Your task to perform on an android device: toggle data saver in the chrome app Image 0: 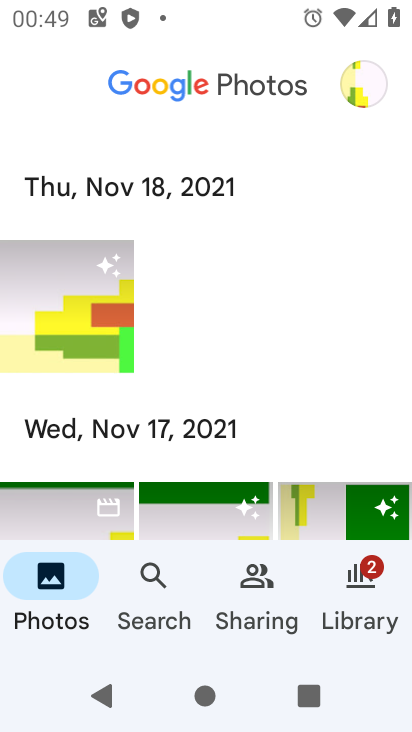
Step 0: press home button
Your task to perform on an android device: toggle data saver in the chrome app Image 1: 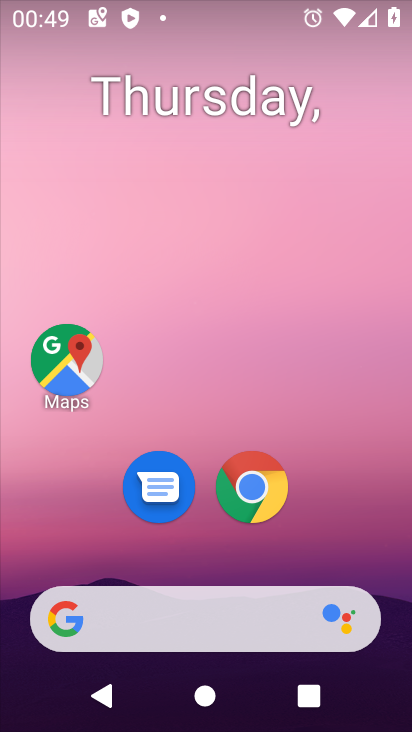
Step 1: click (254, 488)
Your task to perform on an android device: toggle data saver in the chrome app Image 2: 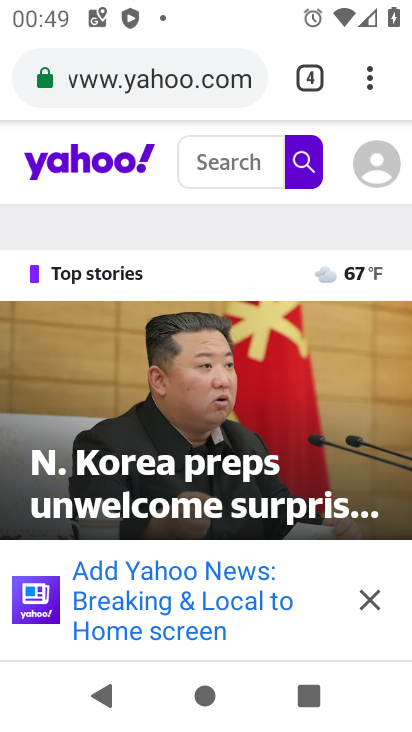
Step 2: click (372, 74)
Your task to perform on an android device: toggle data saver in the chrome app Image 3: 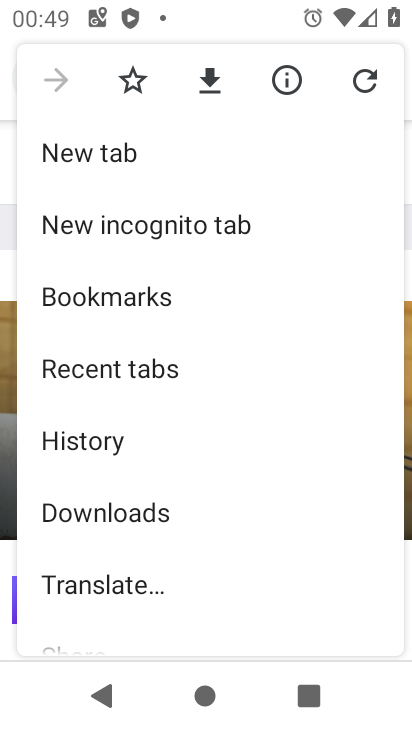
Step 3: drag from (253, 421) to (245, 25)
Your task to perform on an android device: toggle data saver in the chrome app Image 4: 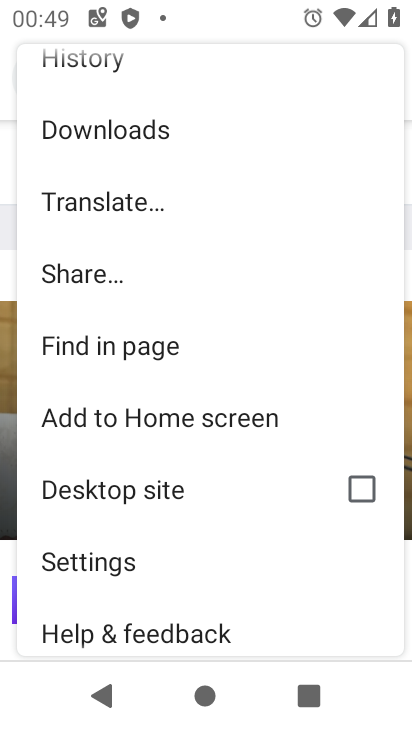
Step 4: drag from (159, 515) to (171, 61)
Your task to perform on an android device: toggle data saver in the chrome app Image 5: 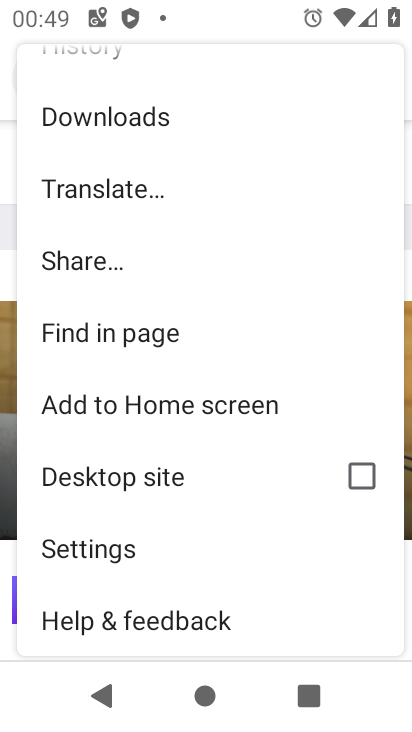
Step 5: click (100, 563)
Your task to perform on an android device: toggle data saver in the chrome app Image 6: 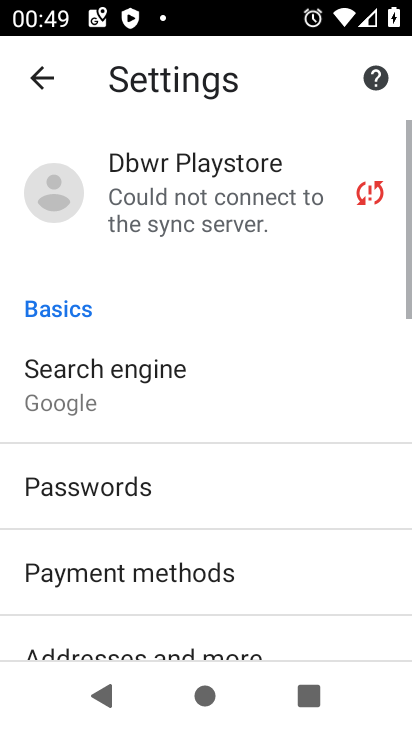
Step 6: drag from (190, 575) to (207, 60)
Your task to perform on an android device: toggle data saver in the chrome app Image 7: 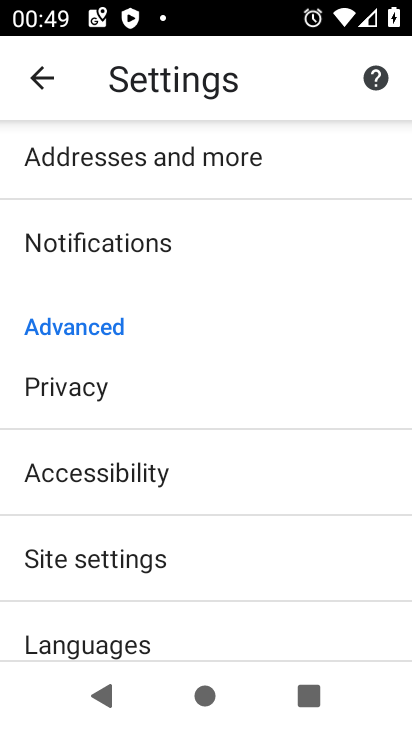
Step 7: drag from (219, 560) to (252, 259)
Your task to perform on an android device: toggle data saver in the chrome app Image 8: 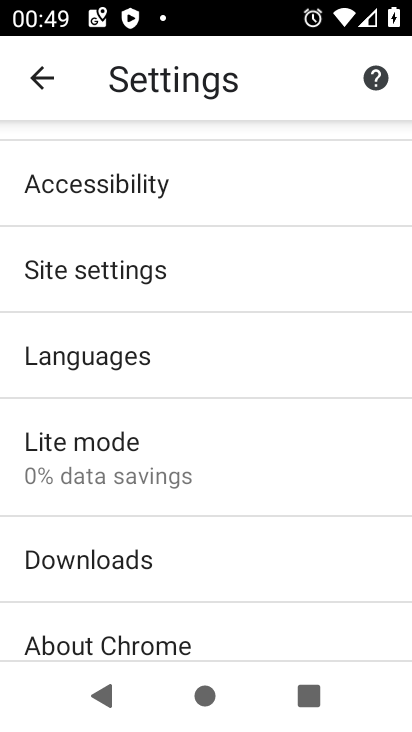
Step 8: click (114, 455)
Your task to perform on an android device: toggle data saver in the chrome app Image 9: 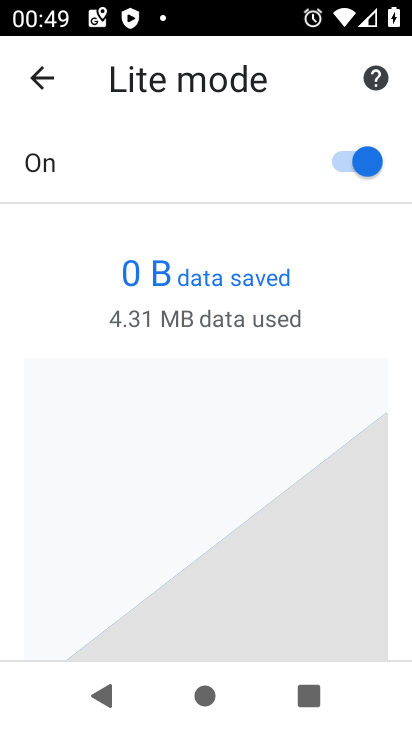
Step 9: click (371, 159)
Your task to perform on an android device: toggle data saver in the chrome app Image 10: 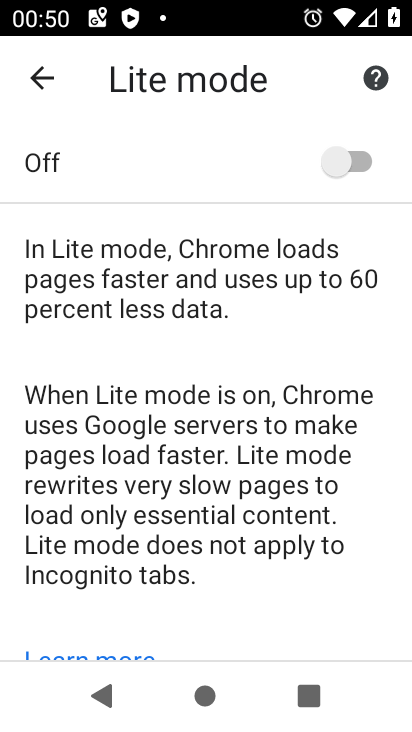
Step 10: click (331, 167)
Your task to perform on an android device: toggle data saver in the chrome app Image 11: 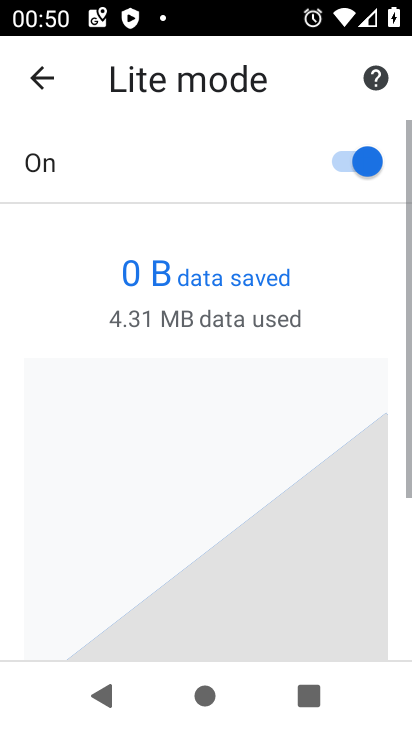
Step 11: task complete